Your task to perform on an android device: turn on improve location accuracy Image 0: 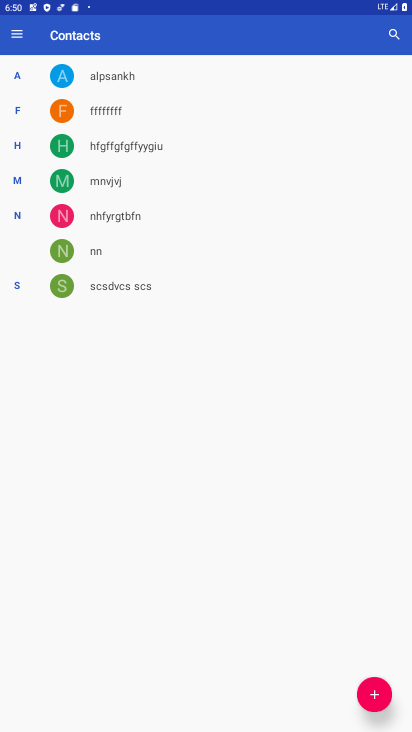
Step 0: press home button
Your task to perform on an android device: turn on improve location accuracy Image 1: 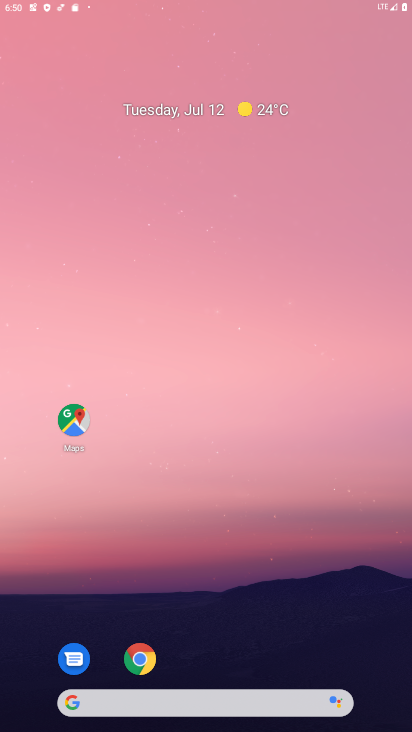
Step 1: drag from (356, 642) to (255, 142)
Your task to perform on an android device: turn on improve location accuracy Image 2: 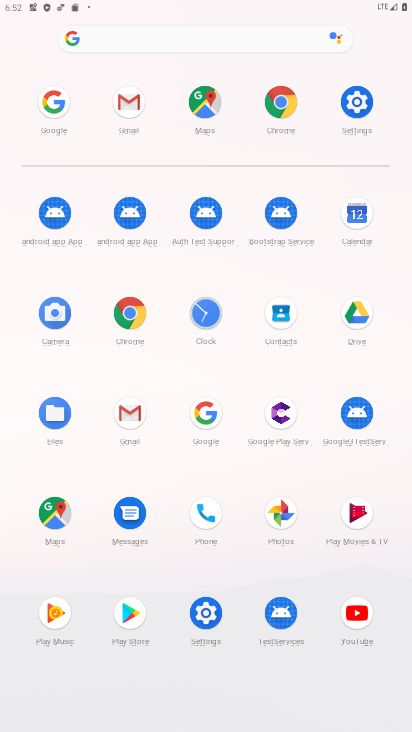
Step 2: click (214, 606)
Your task to perform on an android device: turn on improve location accuracy Image 3: 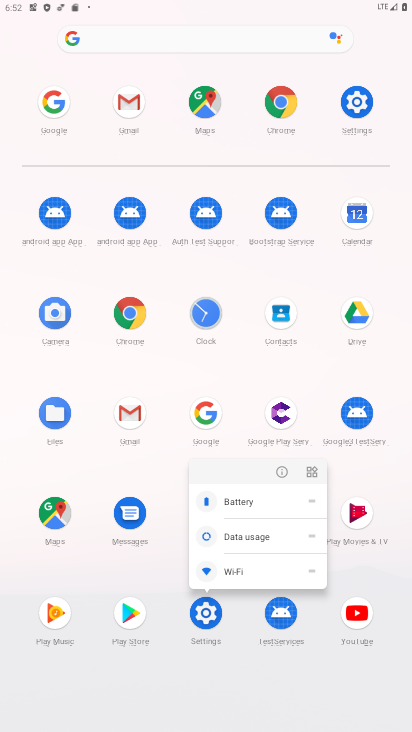
Step 3: click (362, 98)
Your task to perform on an android device: turn on improve location accuracy Image 4: 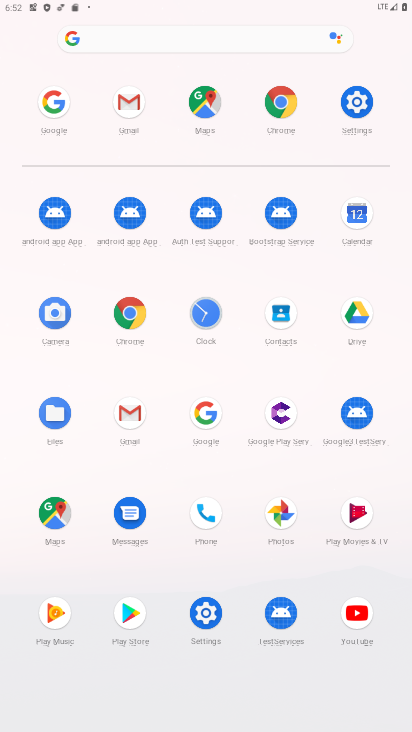
Step 4: click (362, 98)
Your task to perform on an android device: turn on improve location accuracy Image 5: 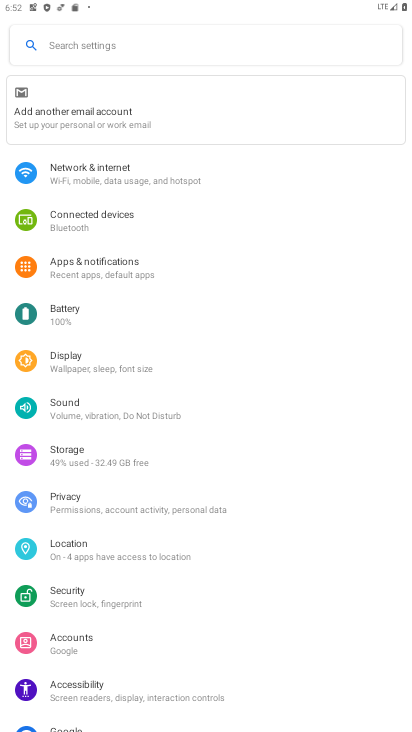
Step 5: click (125, 561)
Your task to perform on an android device: turn on improve location accuracy Image 6: 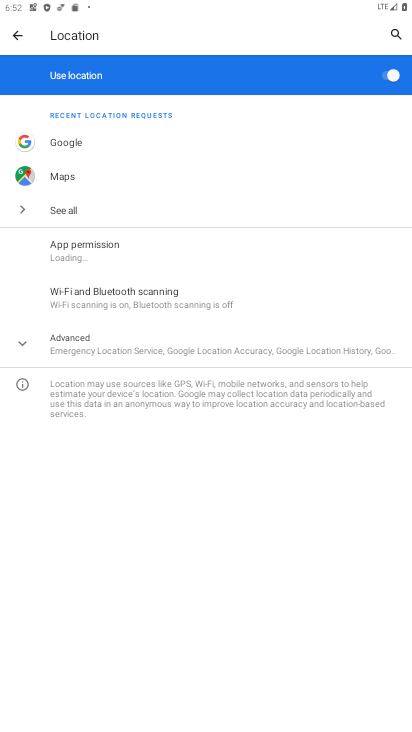
Step 6: click (117, 335)
Your task to perform on an android device: turn on improve location accuracy Image 7: 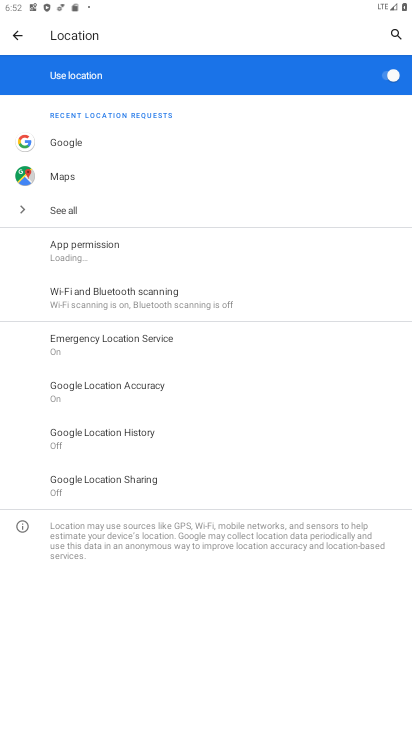
Step 7: click (128, 391)
Your task to perform on an android device: turn on improve location accuracy Image 8: 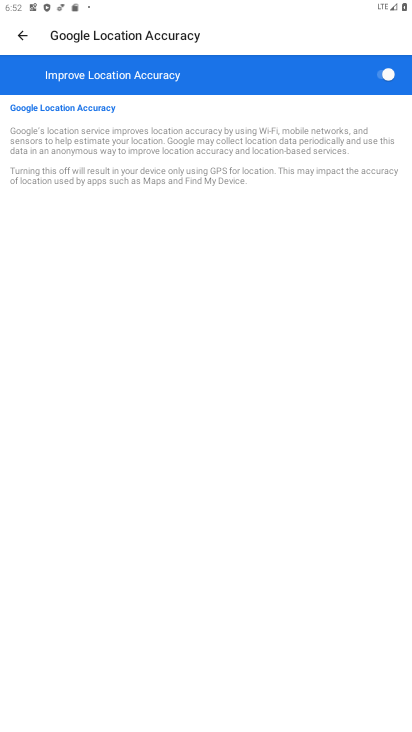
Step 8: task complete